Your task to perform on an android device: toggle pop-ups in chrome Image 0: 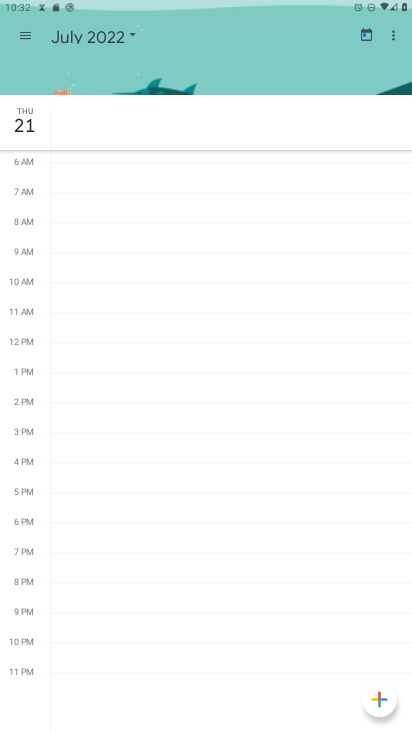
Step 0: press home button
Your task to perform on an android device: toggle pop-ups in chrome Image 1: 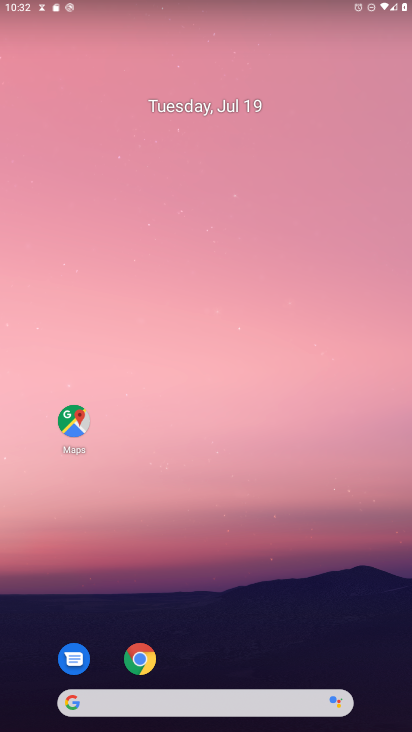
Step 1: drag from (267, 456) to (267, 185)
Your task to perform on an android device: toggle pop-ups in chrome Image 2: 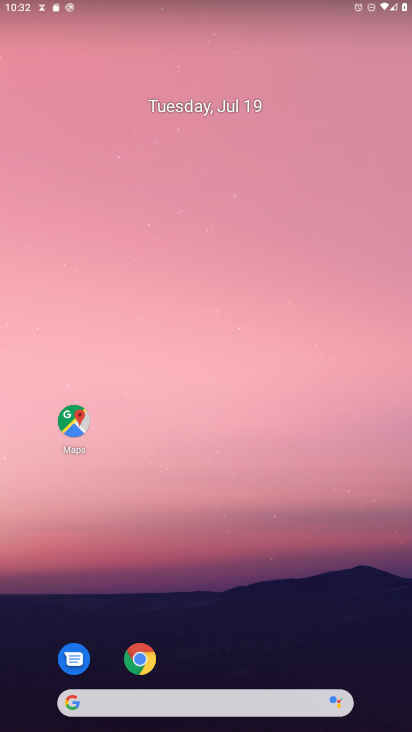
Step 2: drag from (285, 608) to (269, 14)
Your task to perform on an android device: toggle pop-ups in chrome Image 3: 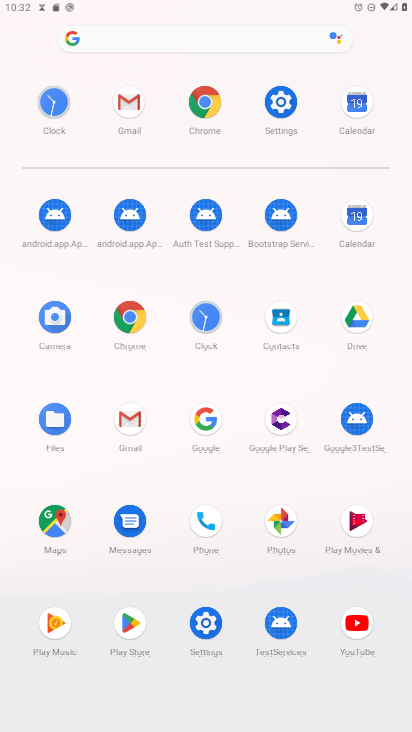
Step 3: click (209, 97)
Your task to perform on an android device: toggle pop-ups in chrome Image 4: 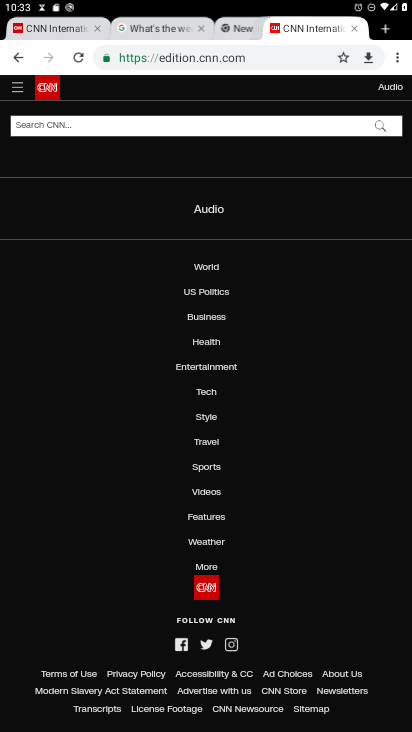
Step 4: click (409, 54)
Your task to perform on an android device: toggle pop-ups in chrome Image 5: 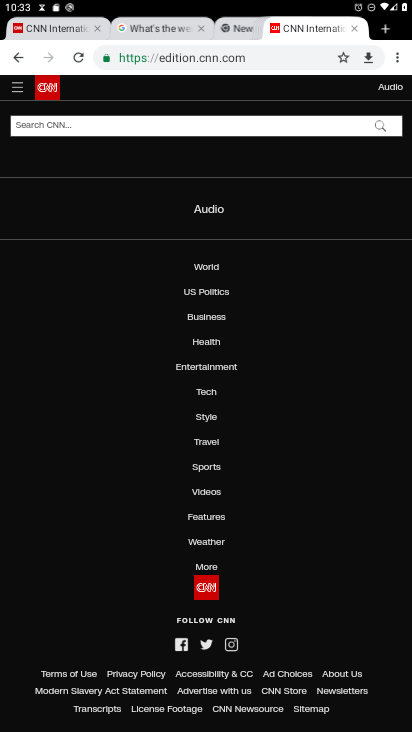
Step 5: click (396, 52)
Your task to perform on an android device: toggle pop-ups in chrome Image 6: 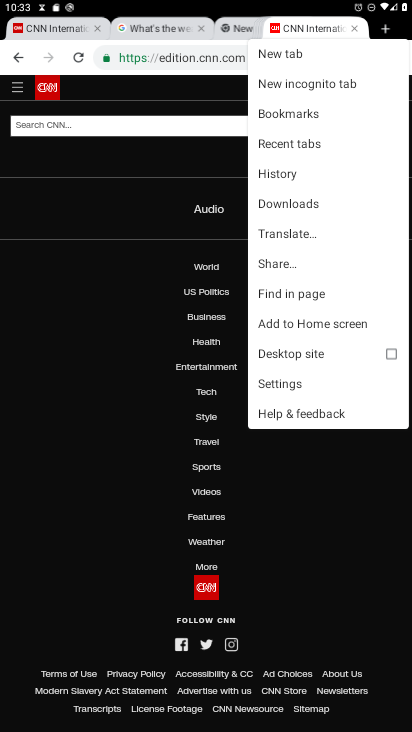
Step 6: click (286, 379)
Your task to perform on an android device: toggle pop-ups in chrome Image 7: 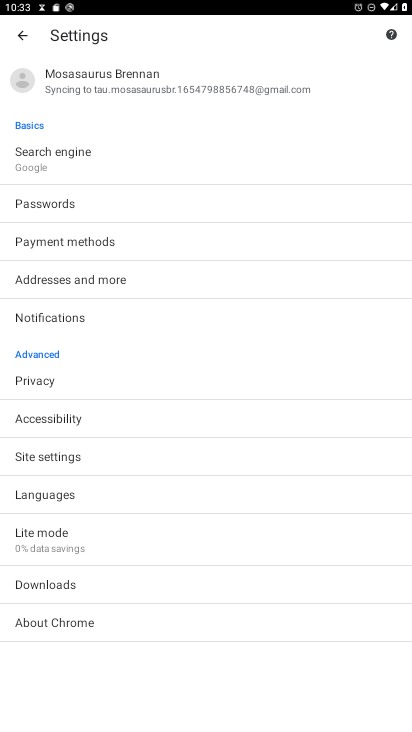
Step 7: click (88, 451)
Your task to perform on an android device: toggle pop-ups in chrome Image 8: 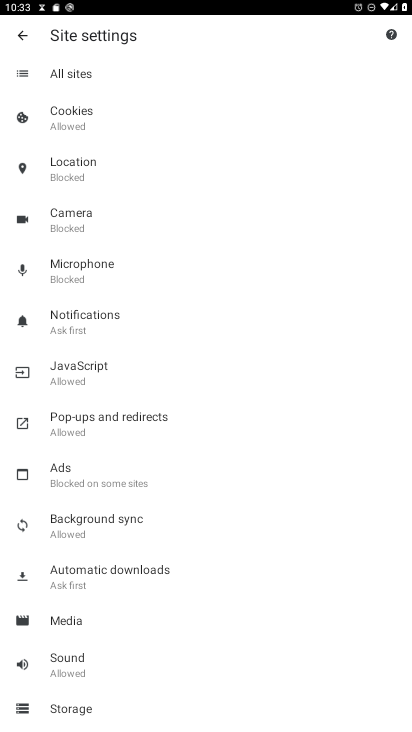
Step 8: click (105, 406)
Your task to perform on an android device: toggle pop-ups in chrome Image 9: 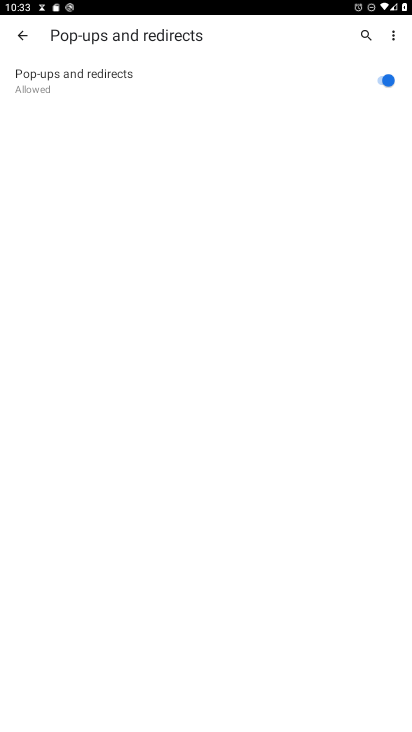
Step 9: click (380, 72)
Your task to perform on an android device: toggle pop-ups in chrome Image 10: 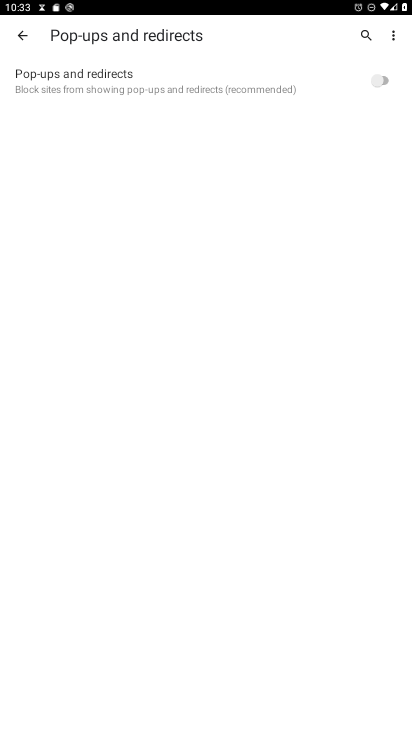
Step 10: task complete